Your task to perform on an android device: Turn on the flashlight Image 0: 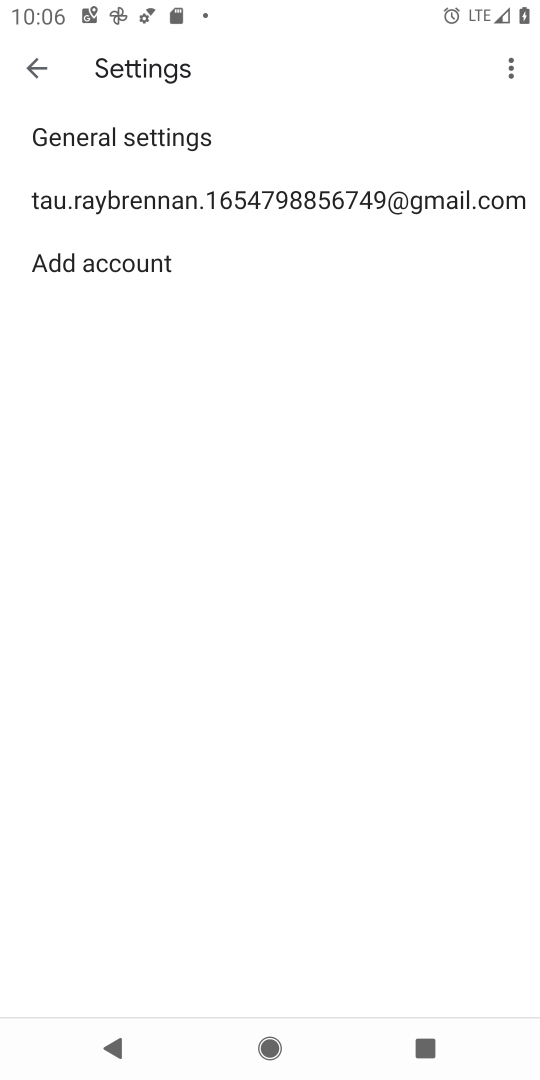
Step 0: press home button
Your task to perform on an android device: Turn on the flashlight Image 1: 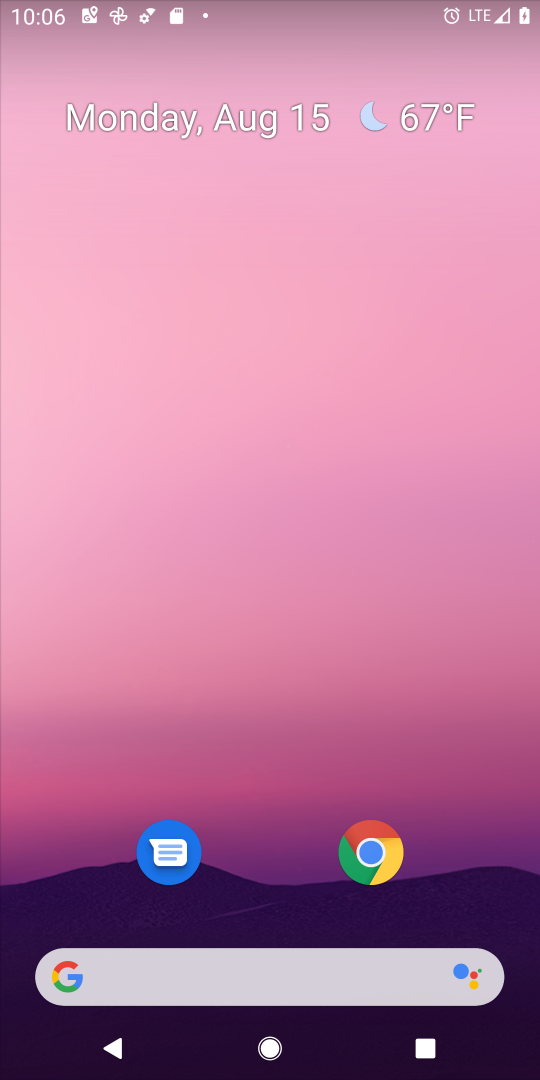
Step 1: drag from (223, 953) to (327, 167)
Your task to perform on an android device: Turn on the flashlight Image 2: 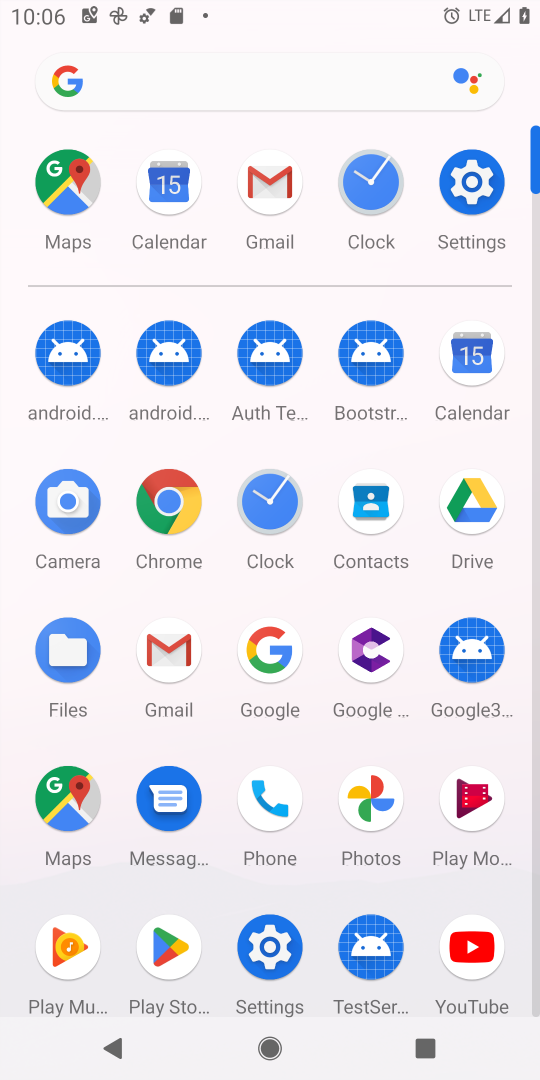
Step 2: click (465, 176)
Your task to perform on an android device: Turn on the flashlight Image 3: 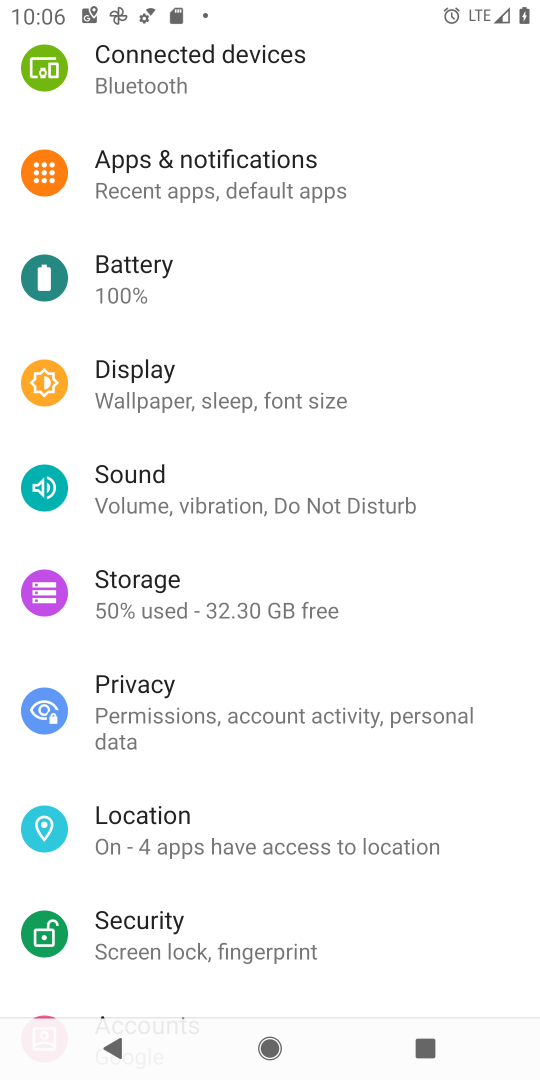
Step 3: click (261, 402)
Your task to perform on an android device: Turn on the flashlight Image 4: 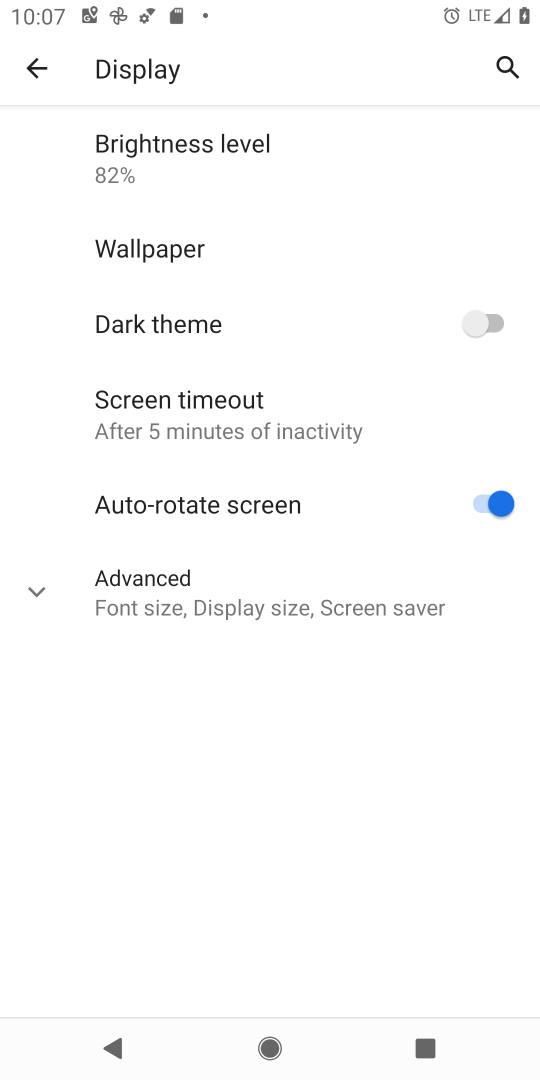
Step 4: click (182, 591)
Your task to perform on an android device: Turn on the flashlight Image 5: 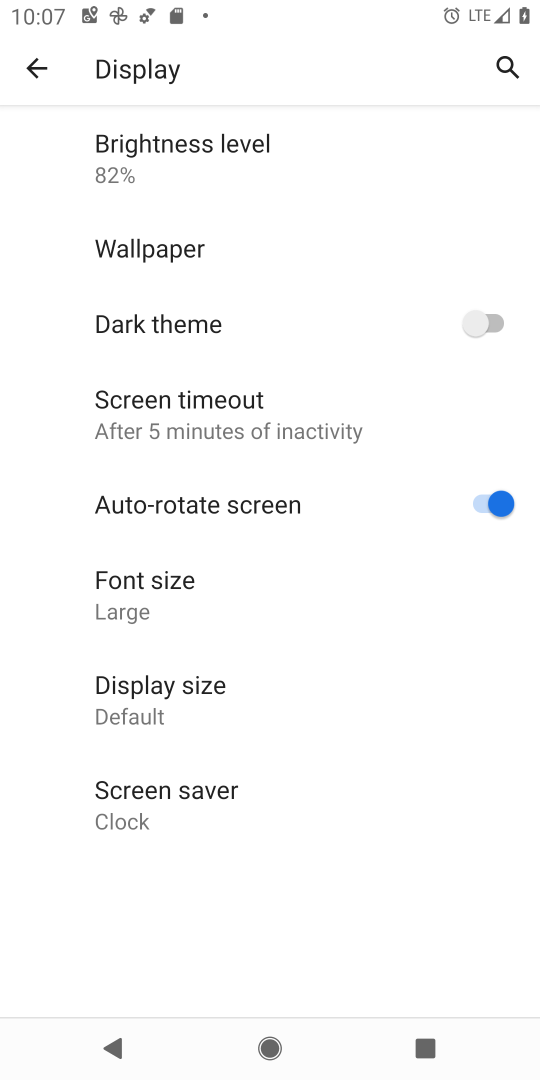
Step 5: task complete